Your task to perform on an android device: turn on javascript in the chrome app Image 0: 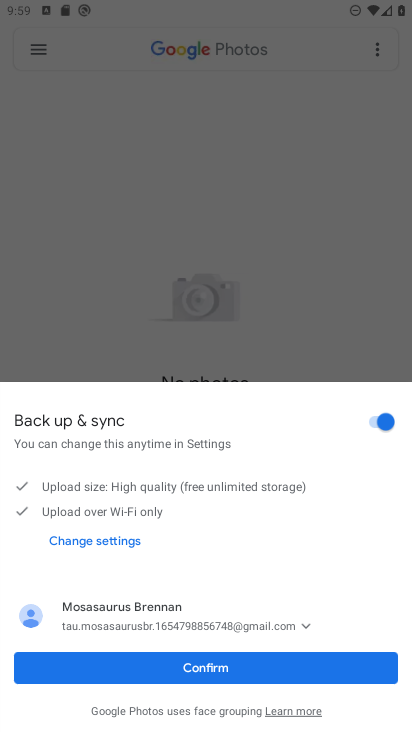
Step 0: click (140, 669)
Your task to perform on an android device: turn on javascript in the chrome app Image 1: 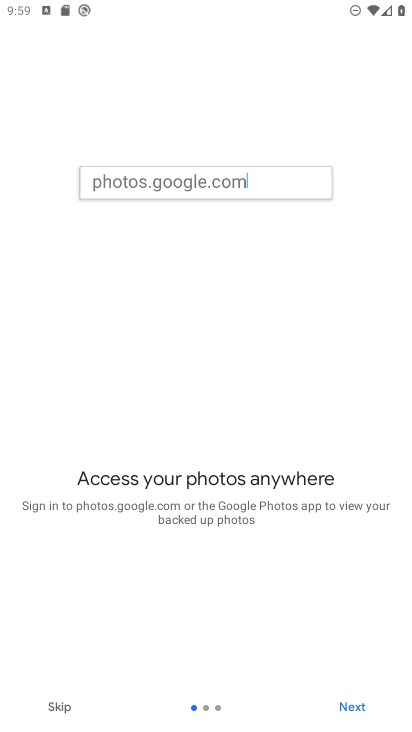
Step 1: press home button
Your task to perform on an android device: turn on javascript in the chrome app Image 2: 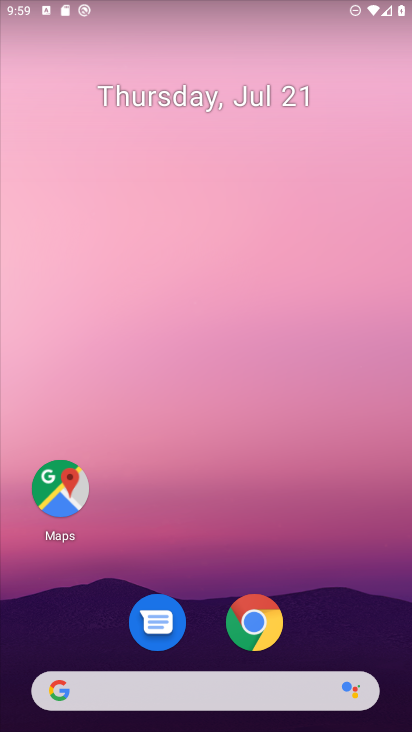
Step 2: click (284, 624)
Your task to perform on an android device: turn on javascript in the chrome app Image 3: 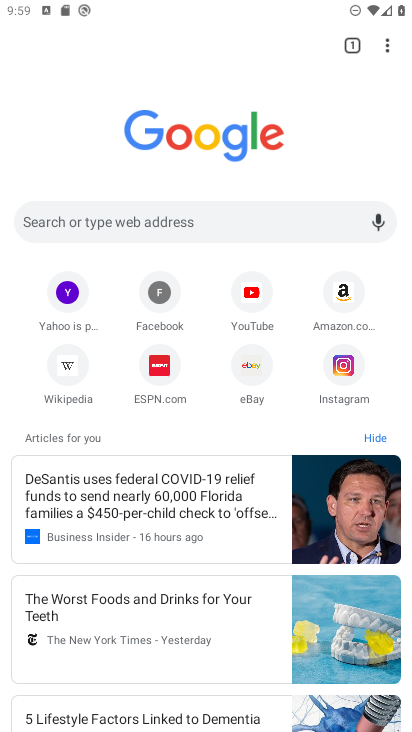
Step 3: click (385, 43)
Your task to perform on an android device: turn on javascript in the chrome app Image 4: 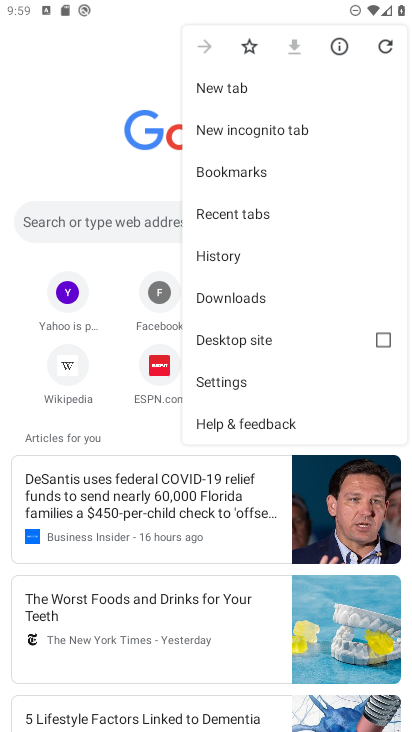
Step 4: click (216, 385)
Your task to perform on an android device: turn on javascript in the chrome app Image 5: 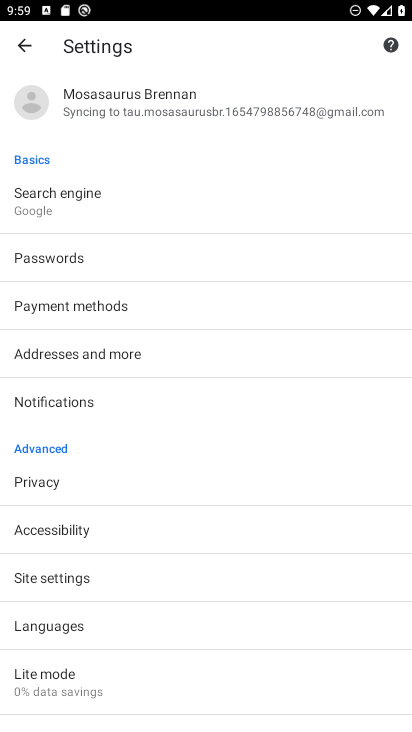
Step 5: click (34, 585)
Your task to perform on an android device: turn on javascript in the chrome app Image 6: 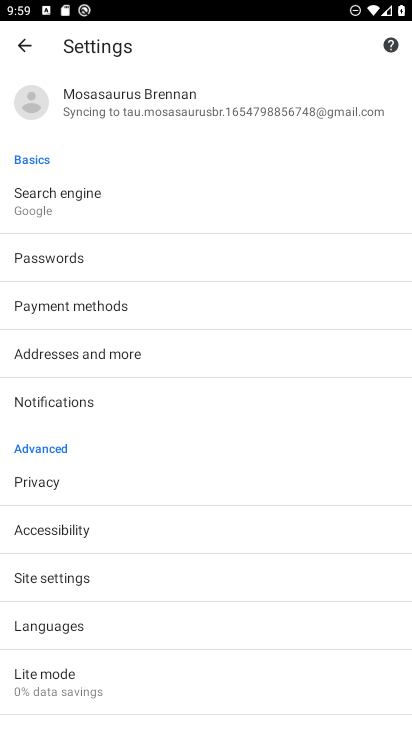
Step 6: click (34, 585)
Your task to perform on an android device: turn on javascript in the chrome app Image 7: 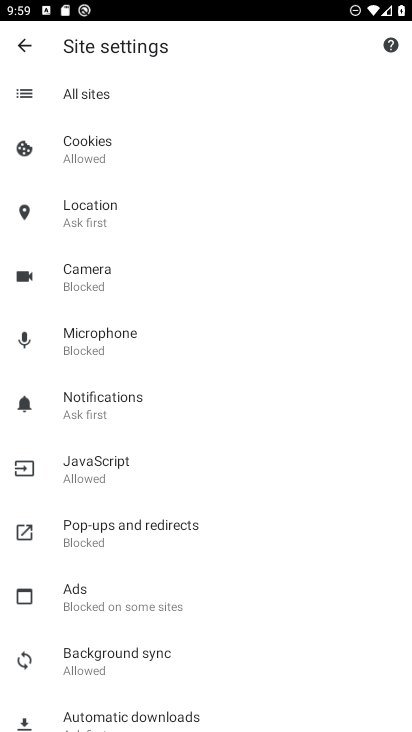
Step 7: click (95, 464)
Your task to perform on an android device: turn on javascript in the chrome app Image 8: 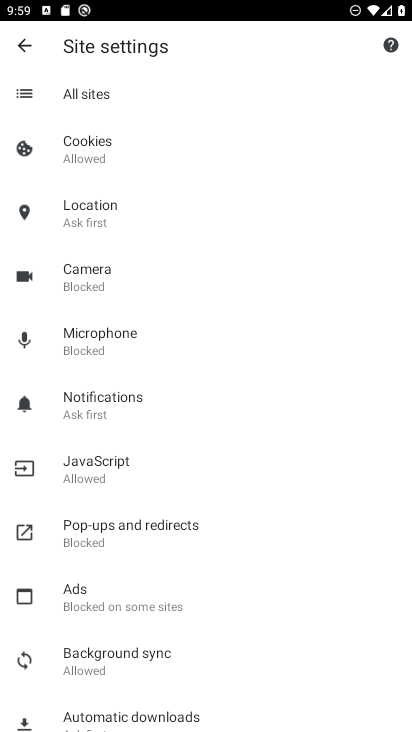
Step 8: click (95, 464)
Your task to perform on an android device: turn on javascript in the chrome app Image 9: 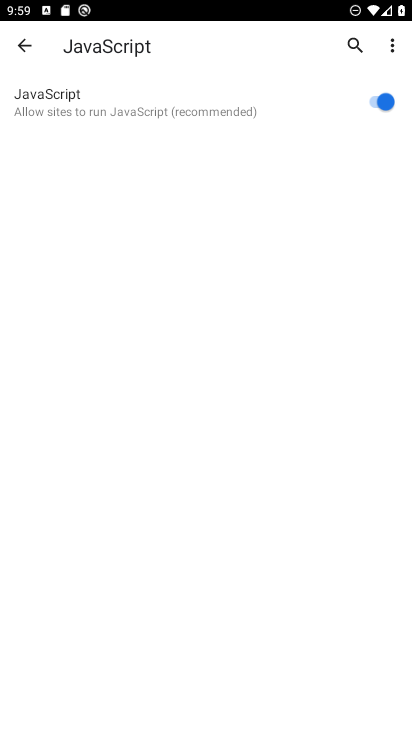
Step 9: task complete